Your task to perform on an android device: manage bookmarks in the chrome app Image 0: 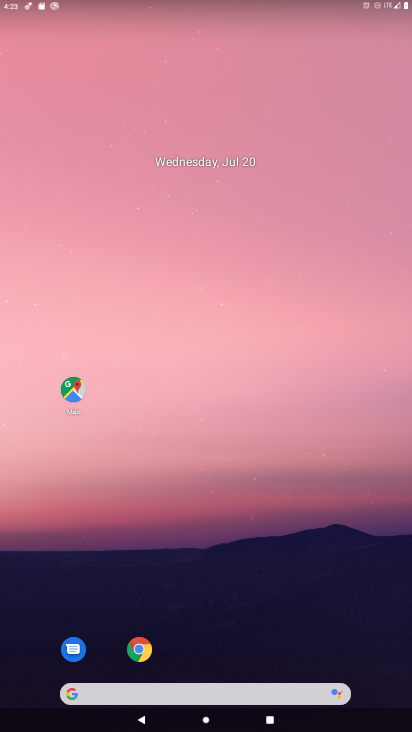
Step 0: click (137, 650)
Your task to perform on an android device: manage bookmarks in the chrome app Image 1: 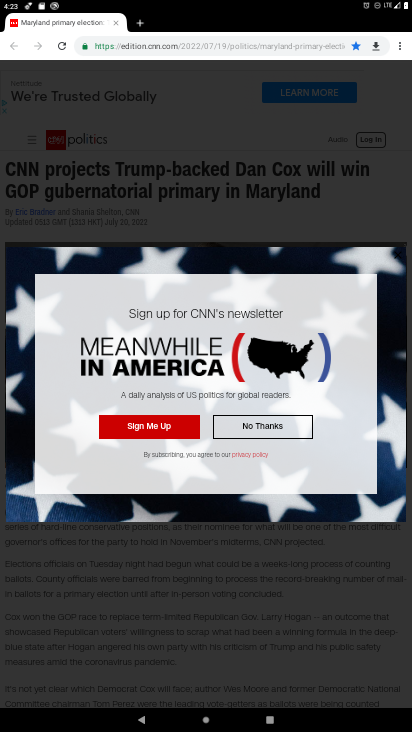
Step 1: click (400, 48)
Your task to perform on an android device: manage bookmarks in the chrome app Image 2: 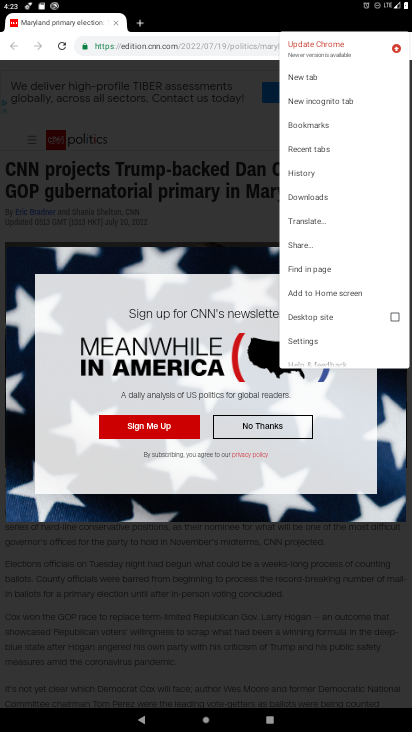
Step 2: click (325, 122)
Your task to perform on an android device: manage bookmarks in the chrome app Image 3: 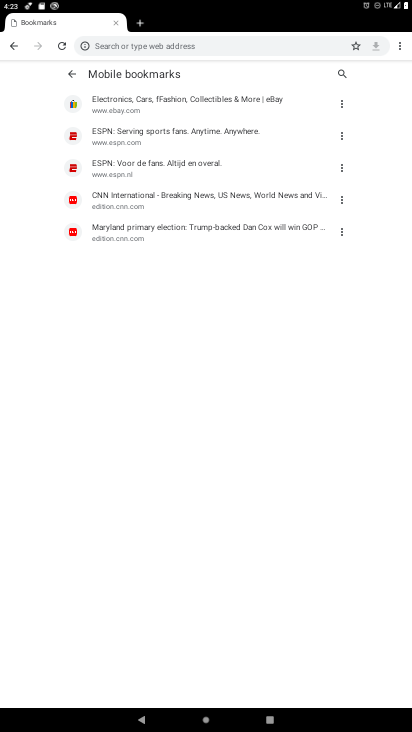
Step 3: click (341, 103)
Your task to perform on an android device: manage bookmarks in the chrome app Image 4: 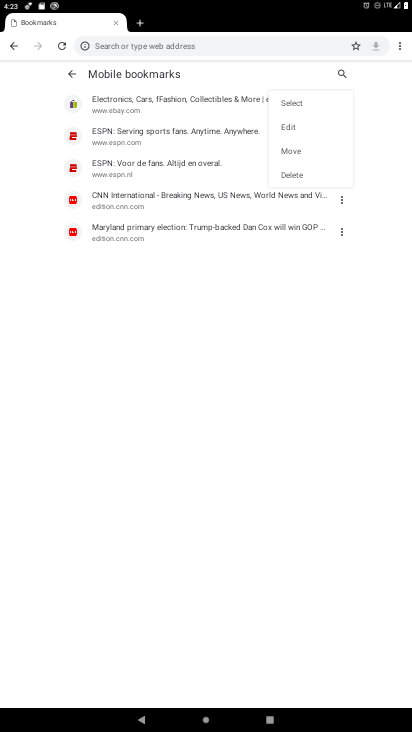
Step 4: click (293, 147)
Your task to perform on an android device: manage bookmarks in the chrome app Image 5: 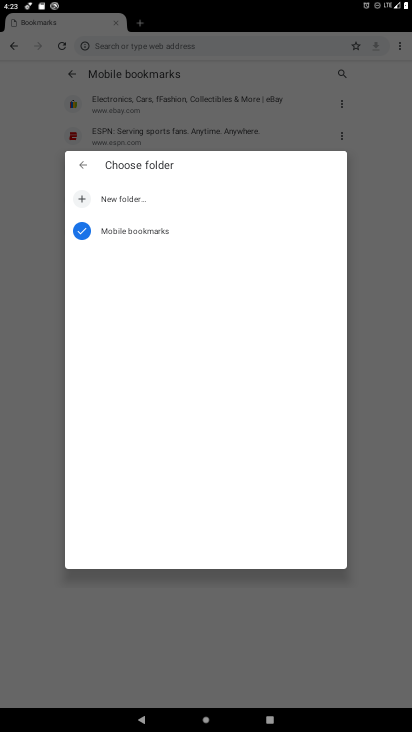
Step 5: click (142, 232)
Your task to perform on an android device: manage bookmarks in the chrome app Image 6: 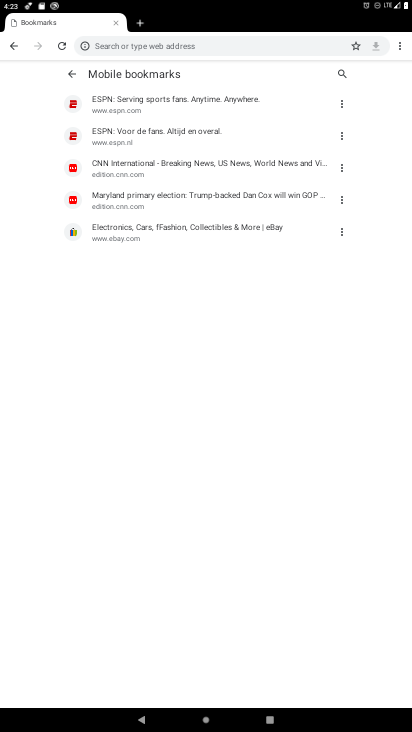
Step 6: task complete